Your task to perform on an android device: Open accessibility settings Image 0: 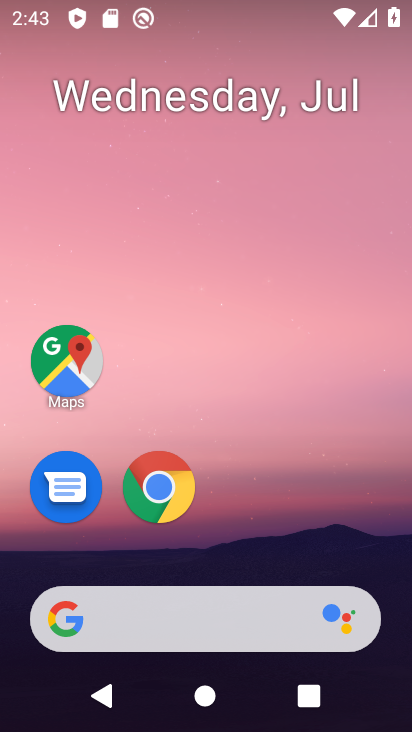
Step 0: drag from (373, 576) to (283, 100)
Your task to perform on an android device: Open accessibility settings Image 1: 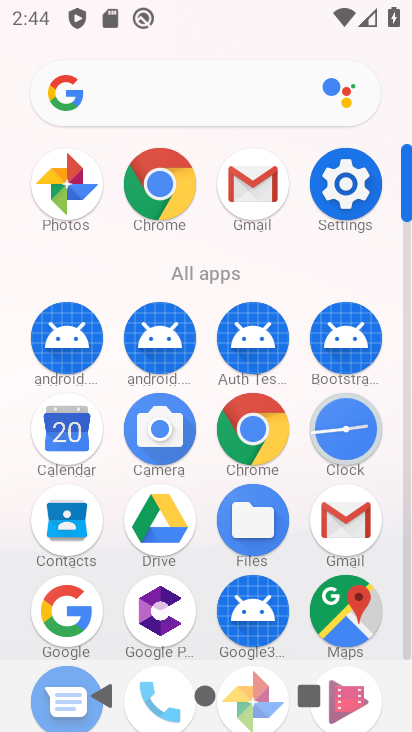
Step 1: click (350, 178)
Your task to perform on an android device: Open accessibility settings Image 2: 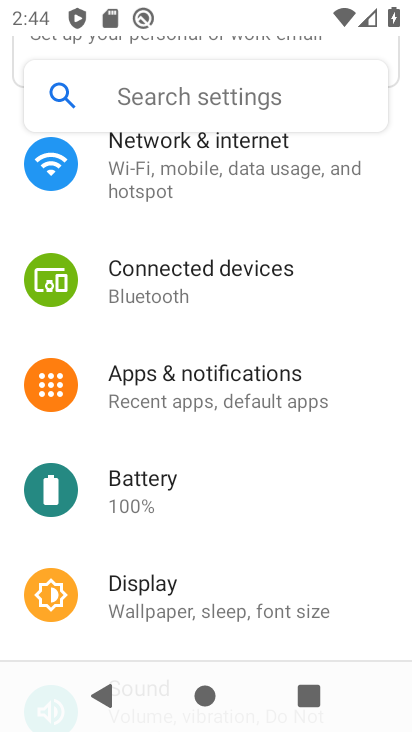
Step 2: drag from (329, 555) to (289, 154)
Your task to perform on an android device: Open accessibility settings Image 3: 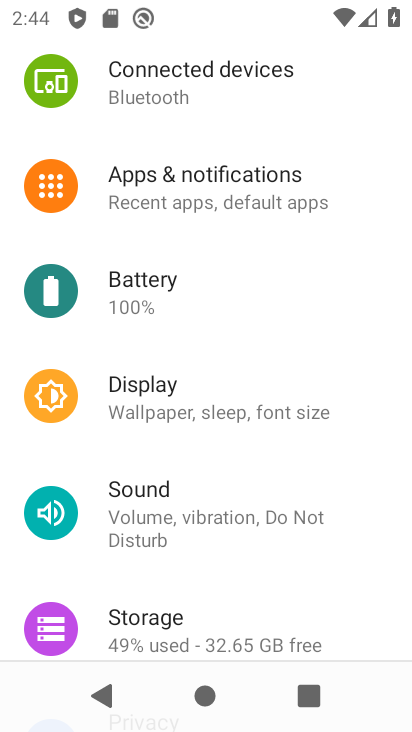
Step 3: drag from (273, 566) to (226, 208)
Your task to perform on an android device: Open accessibility settings Image 4: 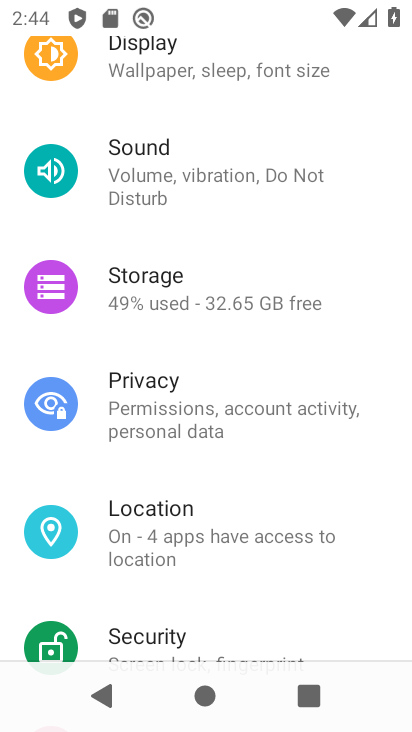
Step 4: drag from (267, 588) to (249, 195)
Your task to perform on an android device: Open accessibility settings Image 5: 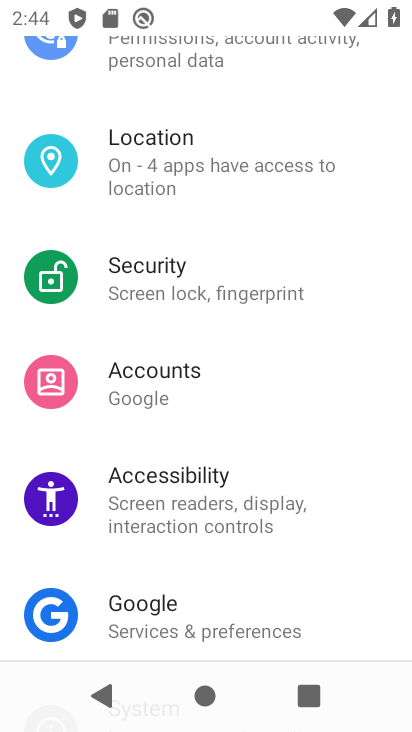
Step 5: click (302, 496)
Your task to perform on an android device: Open accessibility settings Image 6: 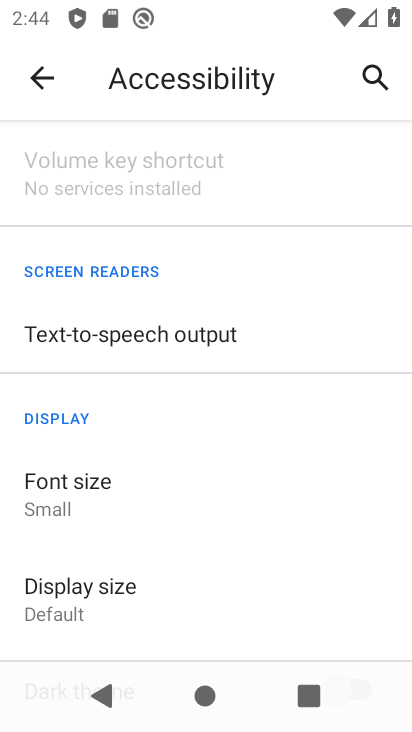
Step 6: task complete